Your task to perform on an android device: turn off location history Image 0: 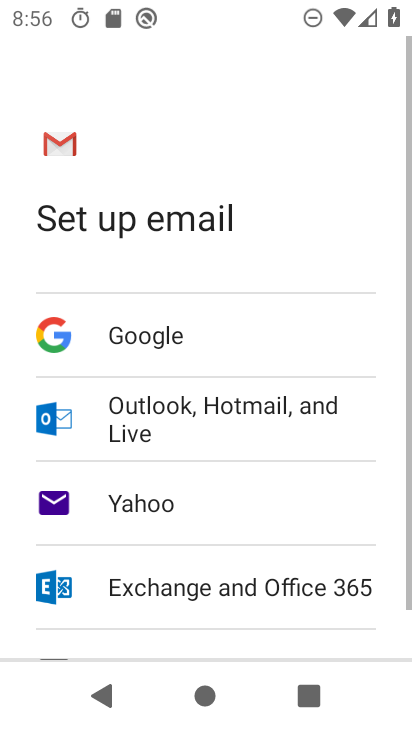
Step 0: press home button
Your task to perform on an android device: turn off location history Image 1: 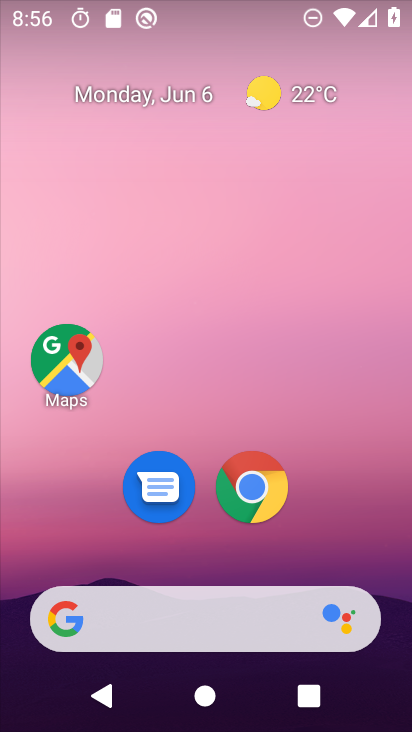
Step 1: drag from (388, 646) to (272, 74)
Your task to perform on an android device: turn off location history Image 2: 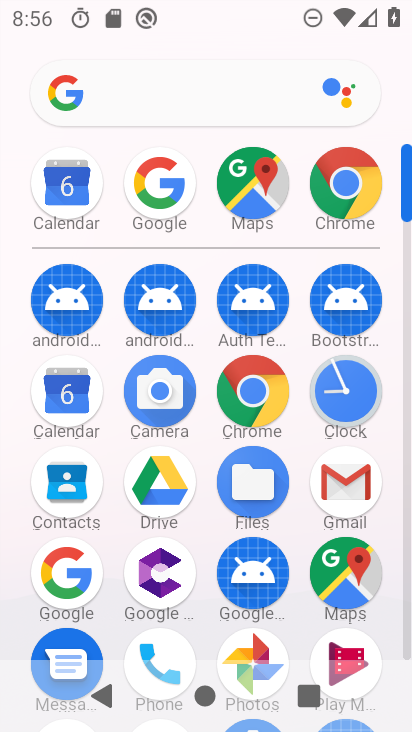
Step 2: drag from (210, 627) to (206, 177)
Your task to perform on an android device: turn off location history Image 3: 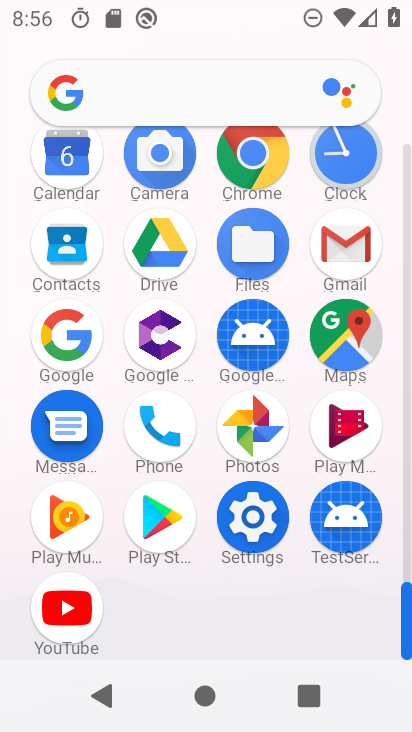
Step 3: click (265, 538)
Your task to perform on an android device: turn off location history Image 4: 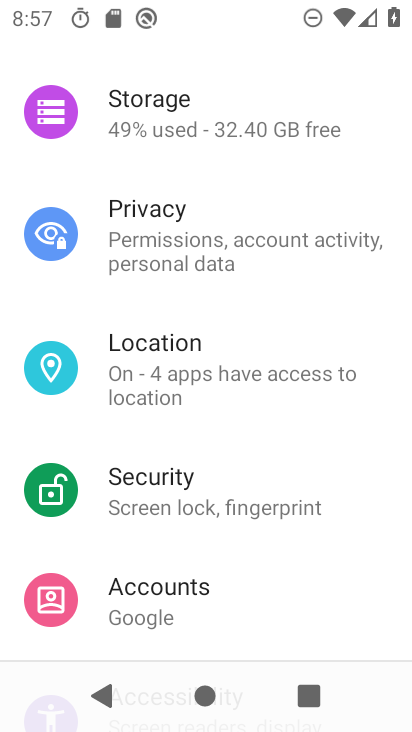
Step 4: click (214, 374)
Your task to perform on an android device: turn off location history Image 5: 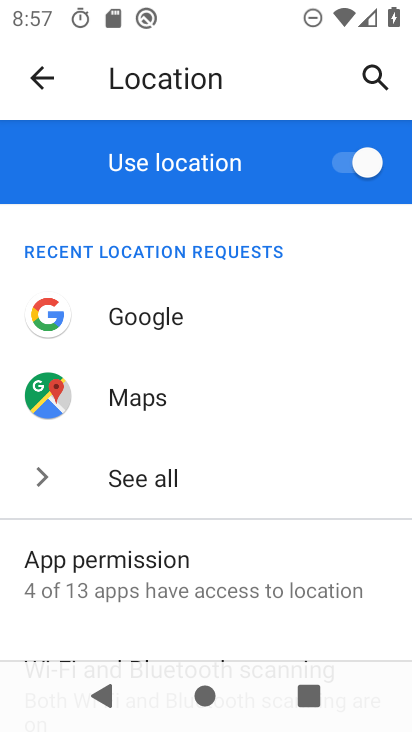
Step 5: drag from (291, 640) to (281, 225)
Your task to perform on an android device: turn off location history Image 6: 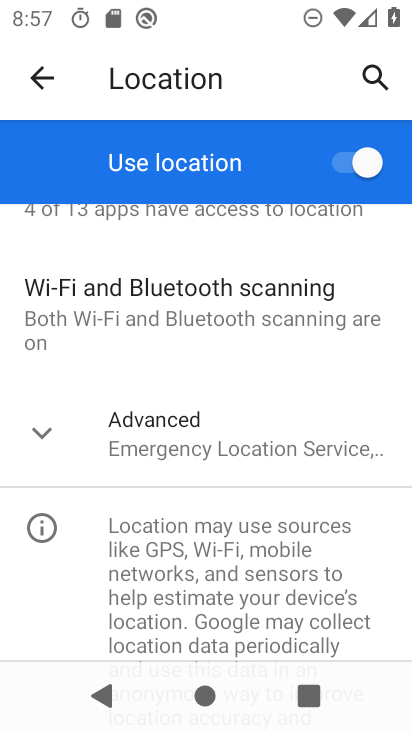
Step 6: click (162, 435)
Your task to perform on an android device: turn off location history Image 7: 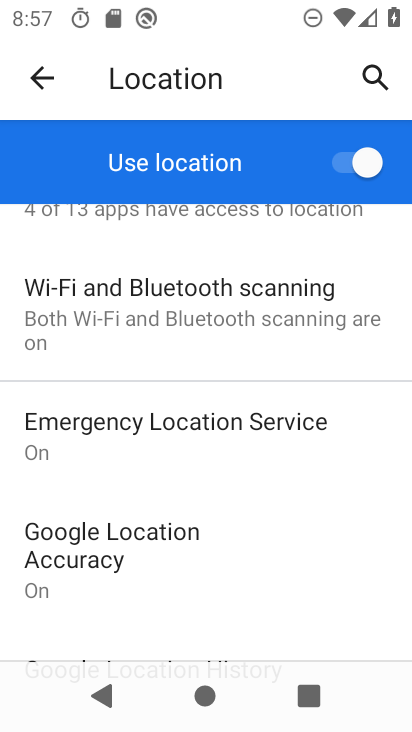
Step 7: drag from (165, 592) to (216, 255)
Your task to perform on an android device: turn off location history Image 8: 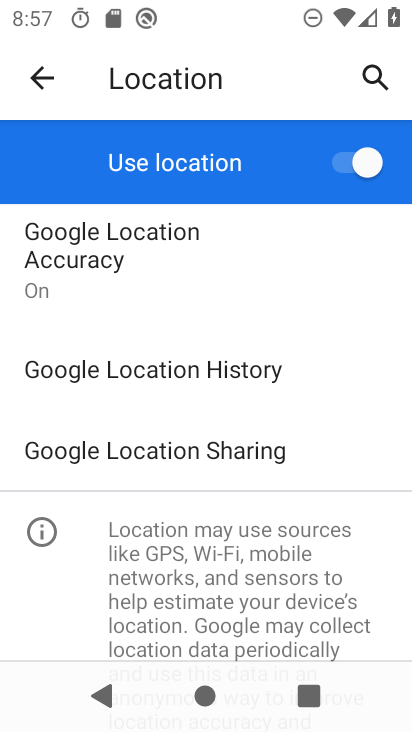
Step 8: click (220, 395)
Your task to perform on an android device: turn off location history Image 9: 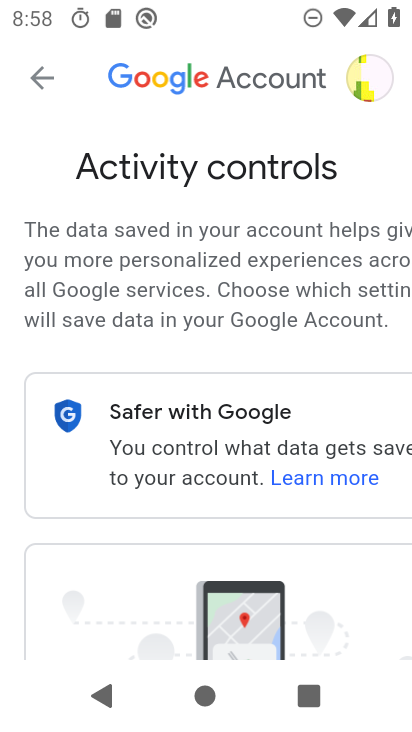
Step 9: task complete